Your task to perform on an android device: Toggle the flashlight Image 0: 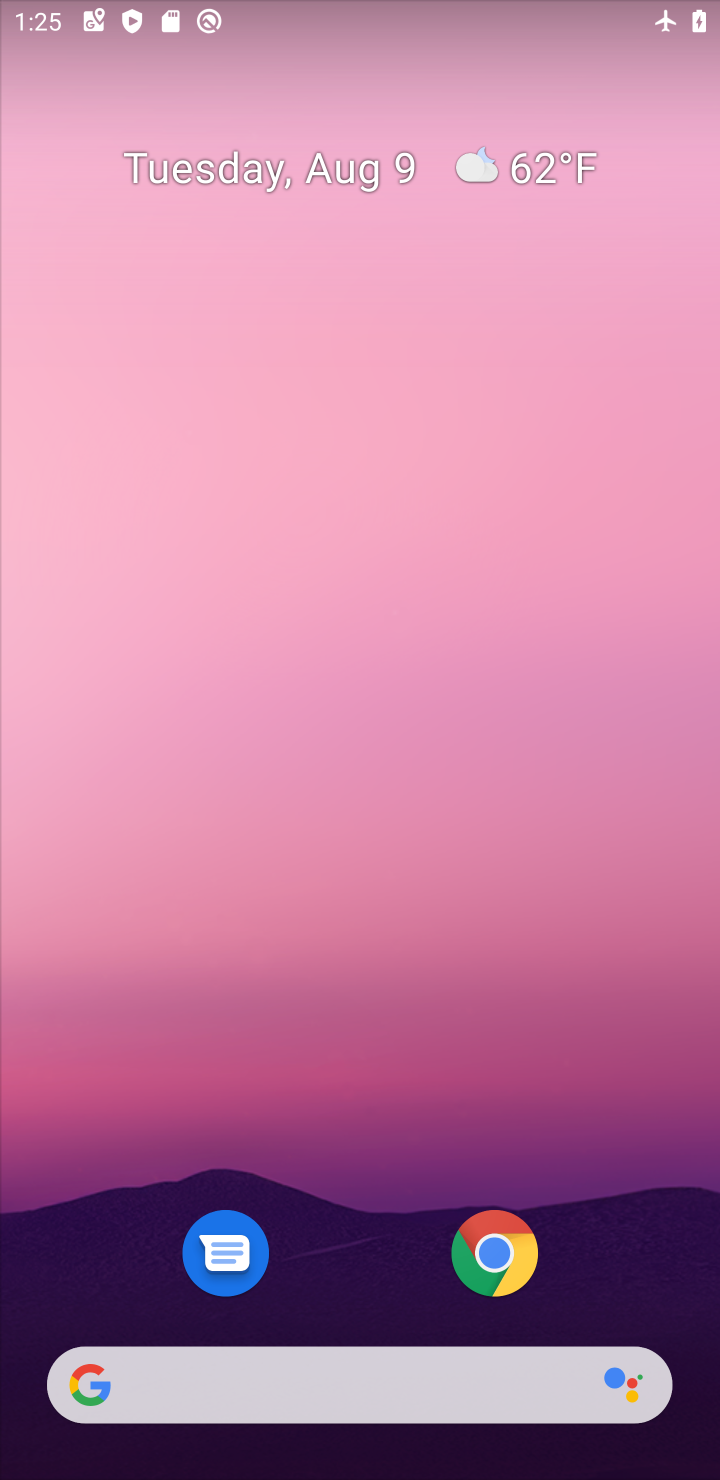
Step 0: drag from (631, 1212) to (413, 197)
Your task to perform on an android device: Toggle the flashlight Image 1: 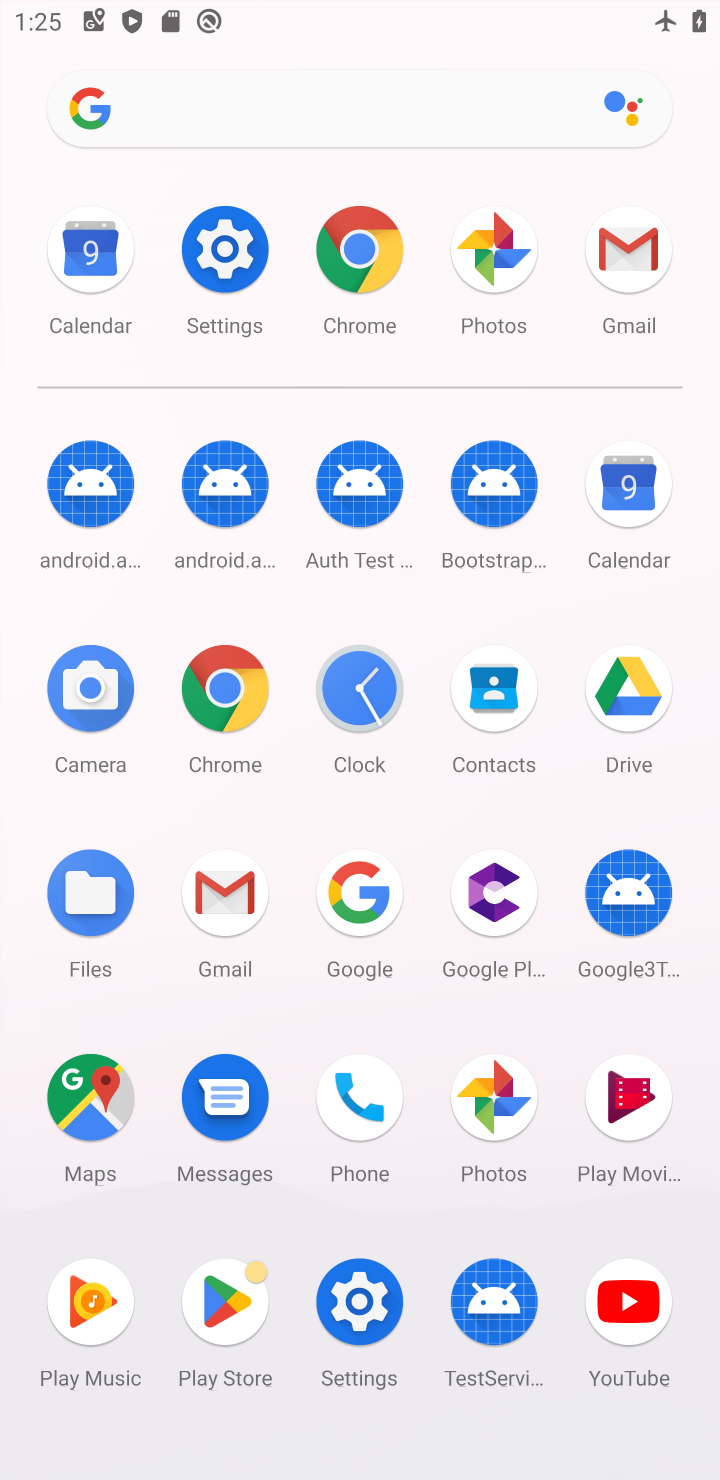
Step 1: click (239, 274)
Your task to perform on an android device: Toggle the flashlight Image 2: 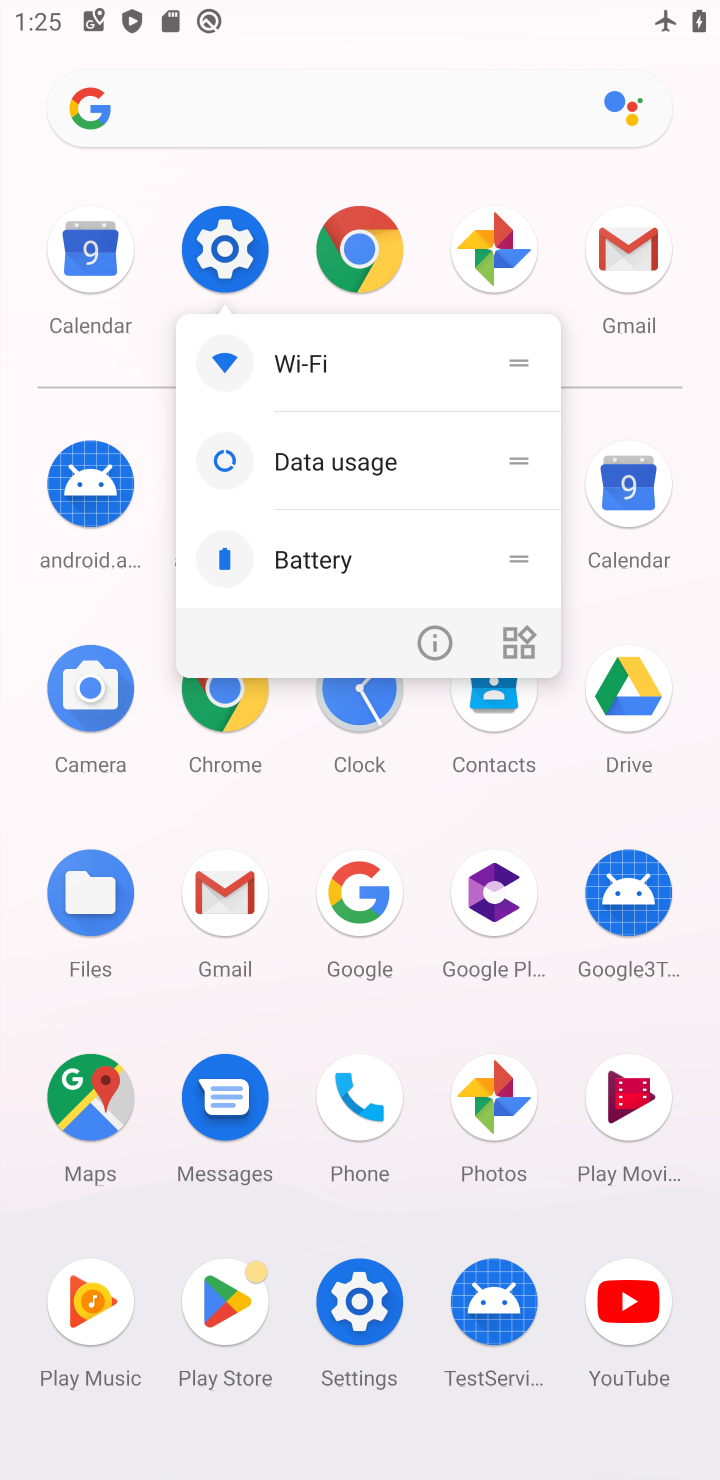
Step 2: click (239, 274)
Your task to perform on an android device: Toggle the flashlight Image 3: 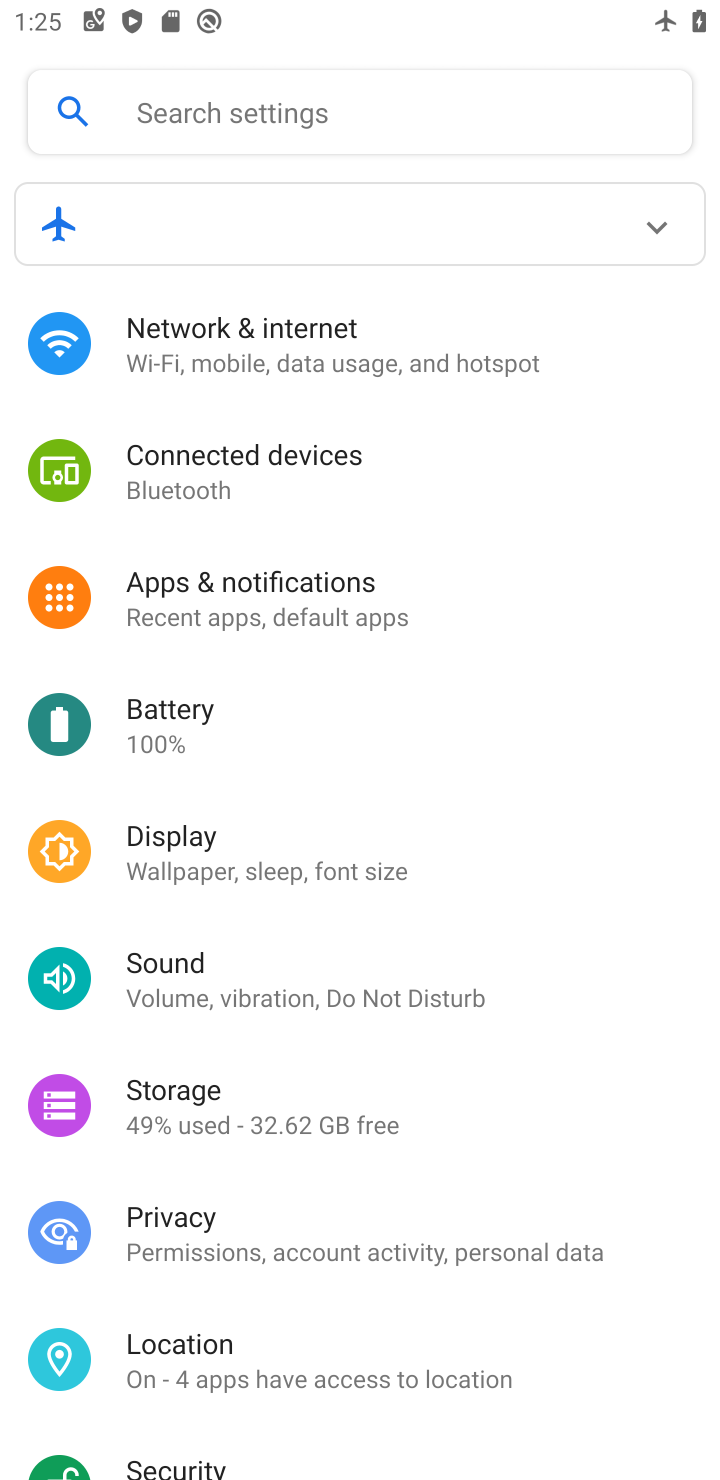
Step 3: task complete